Your task to perform on an android device: Check the weather Image 0: 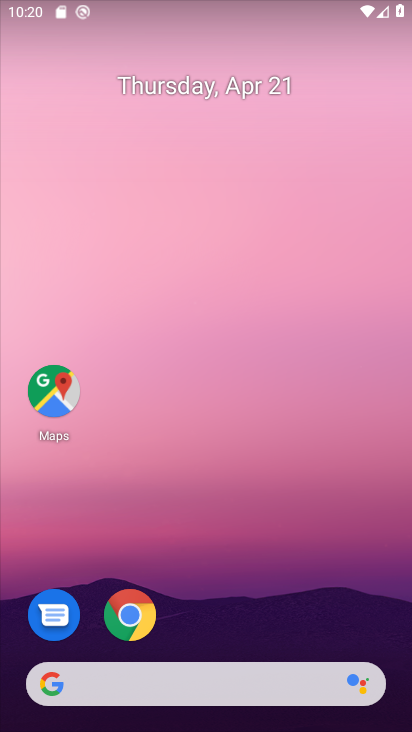
Step 0: click (216, 150)
Your task to perform on an android device: Check the weather Image 1: 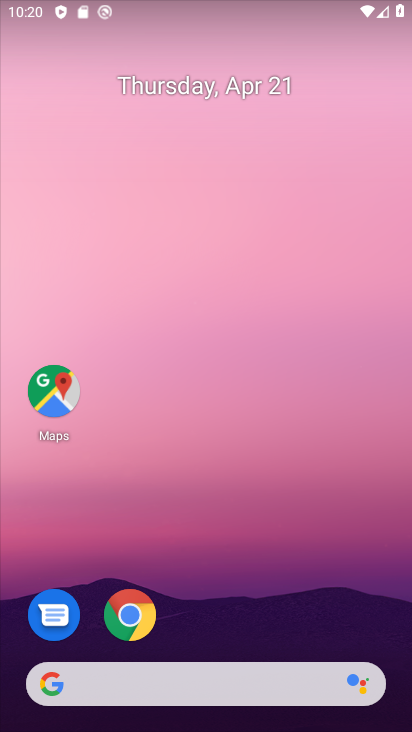
Step 1: drag from (317, 580) to (268, 304)
Your task to perform on an android device: Check the weather Image 2: 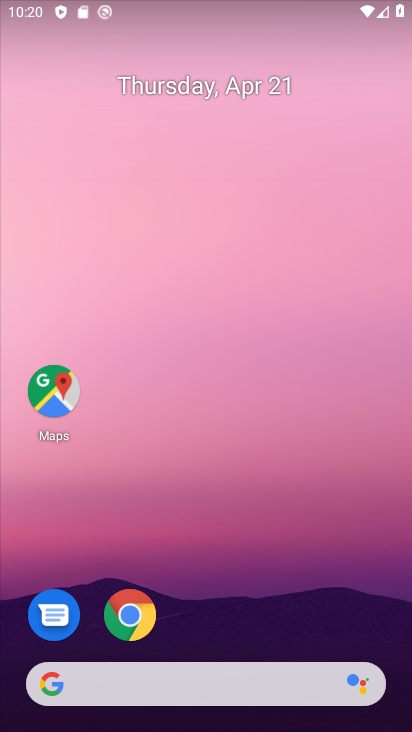
Step 2: click (130, 611)
Your task to perform on an android device: Check the weather Image 3: 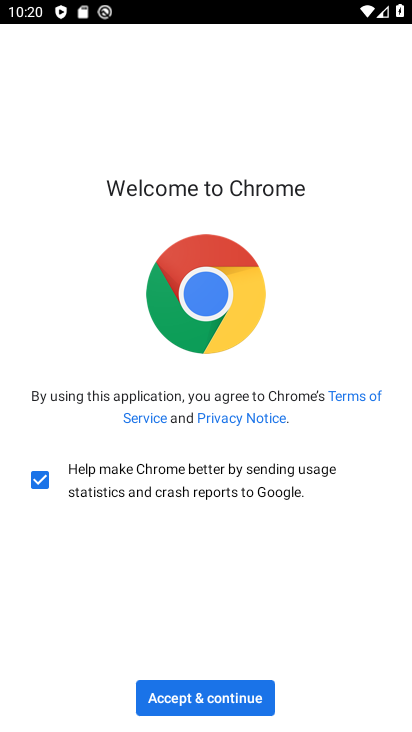
Step 3: click (213, 706)
Your task to perform on an android device: Check the weather Image 4: 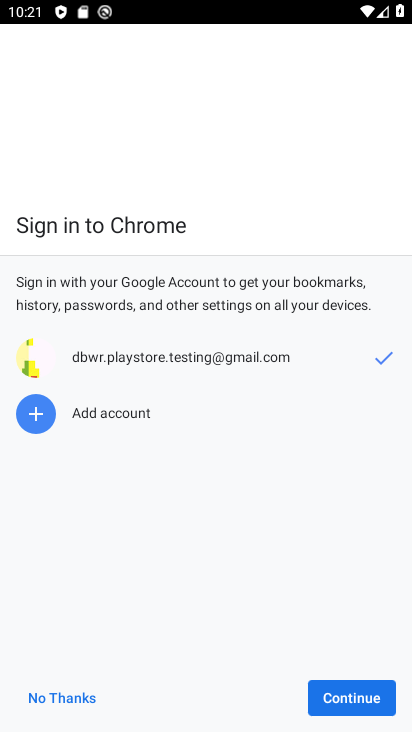
Step 4: click (363, 695)
Your task to perform on an android device: Check the weather Image 5: 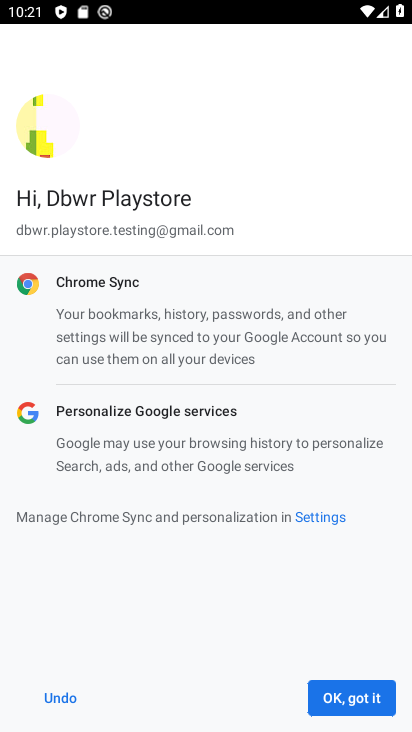
Step 5: click (363, 695)
Your task to perform on an android device: Check the weather Image 6: 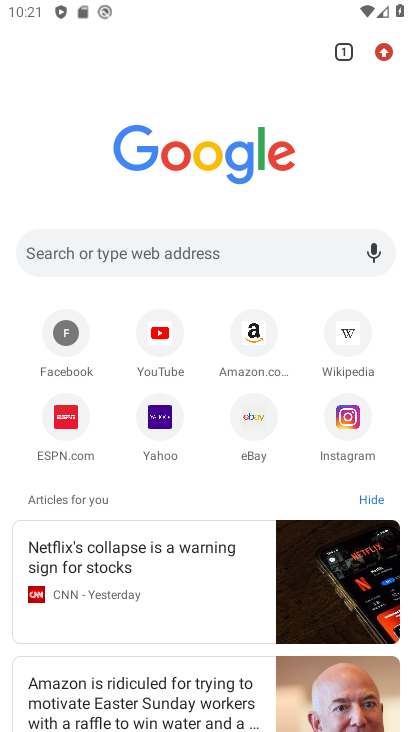
Step 6: click (234, 246)
Your task to perform on an android device: Check the weather Image 7: 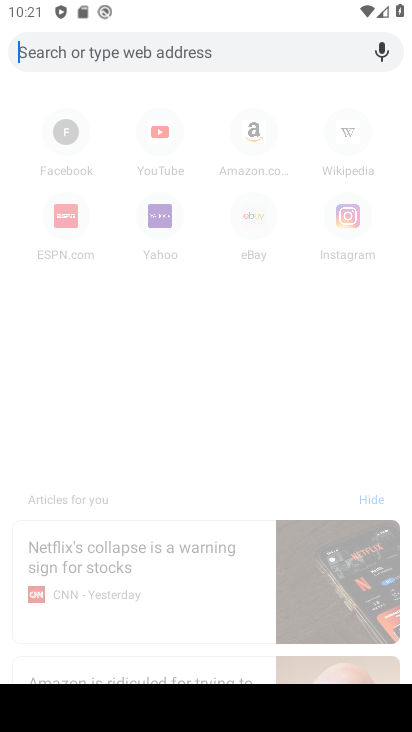
Step 7: type "weather"
Your task to perform on an android device: Check the weather Image 8: 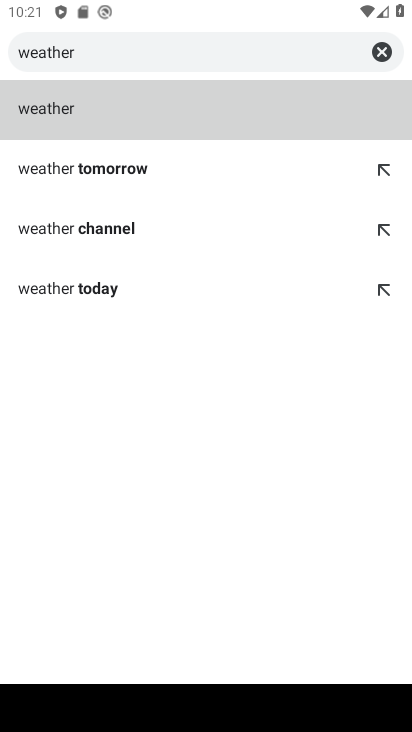
Step 8: click (83, 108)
Your task to perform on an android device: Check the weather Image 9: 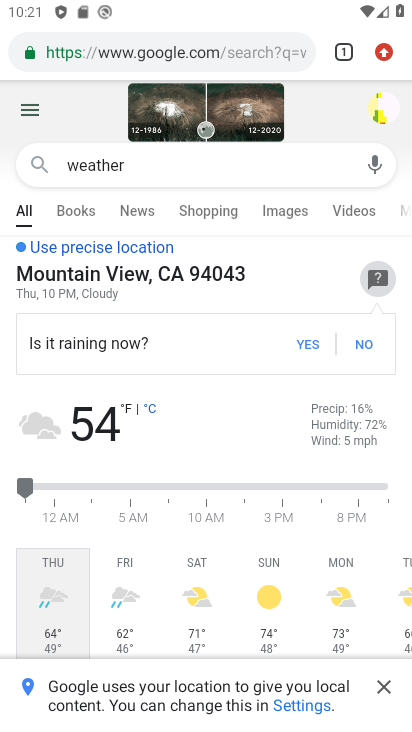
Step 9: task complete